Your task to perform on an android device: Open the map Image 0: 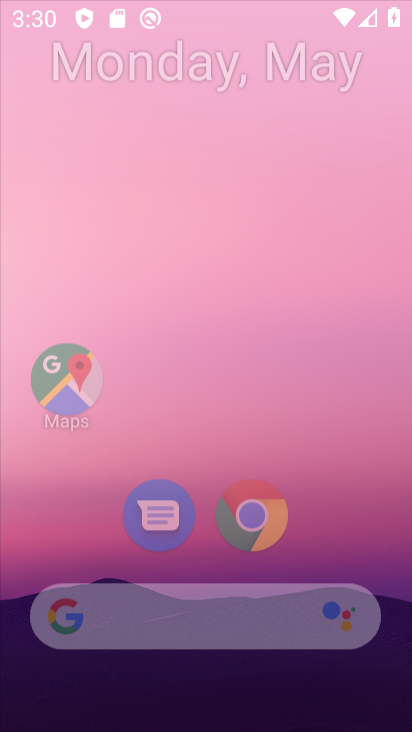
Step 0: click (265, 379)
Your task to perform on an android device: Open the map Image 1: 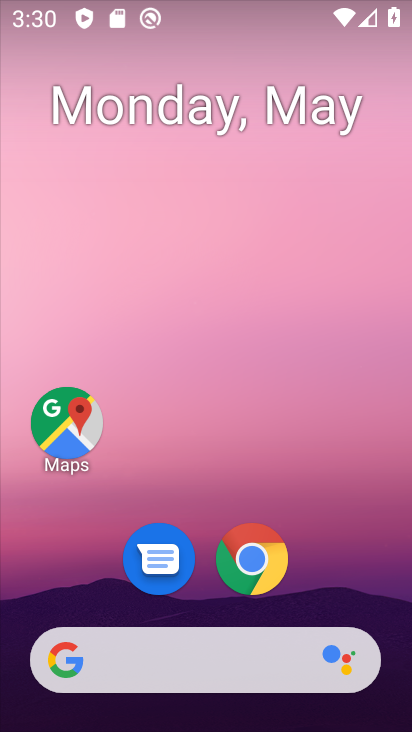
Step 1: drag from (278, 717) to (181, 149)
Your task to perform on an android device: Open the map Image 2: 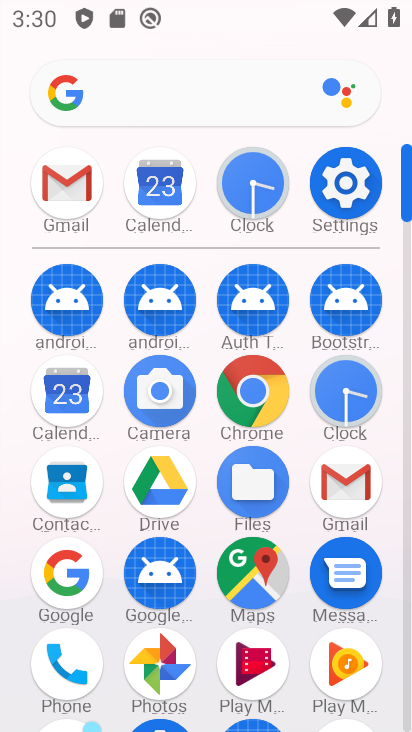
Step 2: click (256, 566)
Your task to perform on an android device: Open the map Image 3: 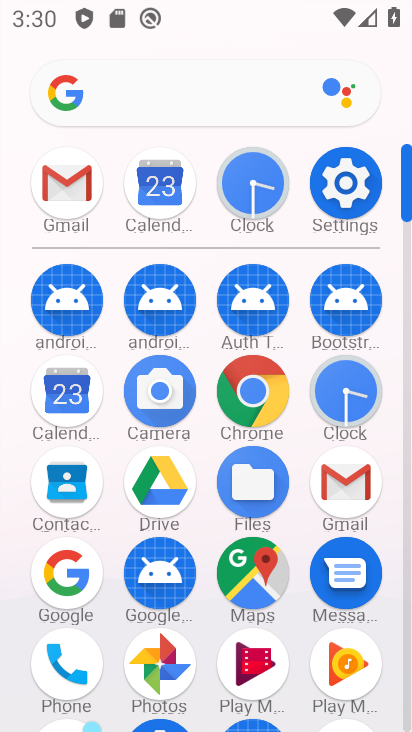
Step 3: click (255, 571)
Your task to perform on an android device: Open the map Image 4: 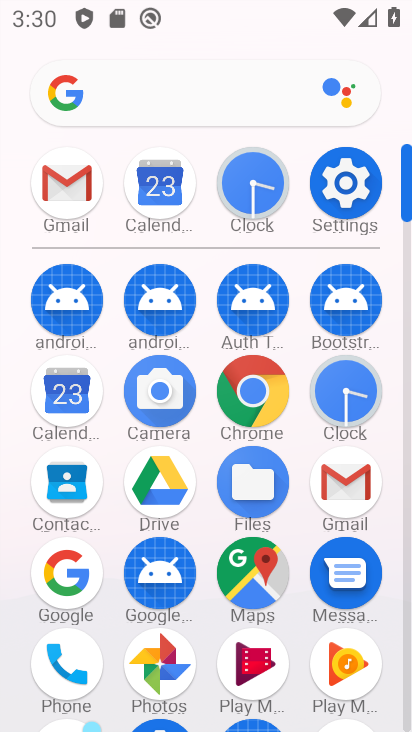
Step 4: click (255, 572)
Your task to perform on an android device: Open the map Image 5: 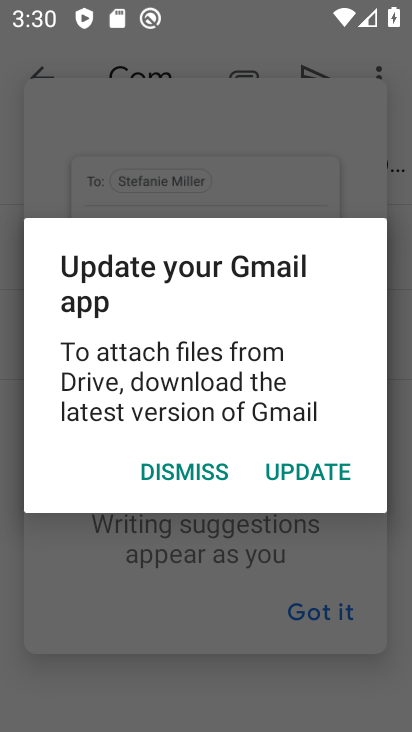
Step 5: click (256, 573)
Your task to perform on an android device: Open the map Image 6: 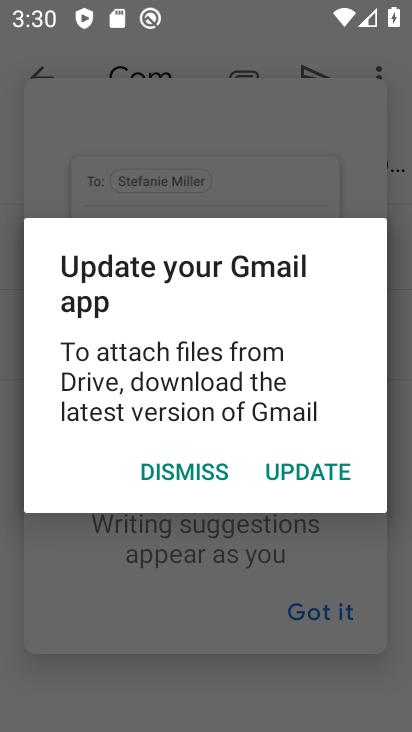
Step 6: click (250, 579)
Your task to perform on an android device: Open the map Image 7: 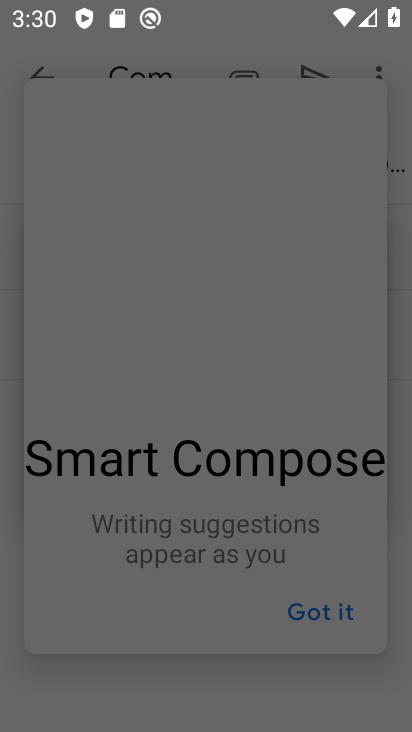
Step 7: click (175, 471)
Your task to perform on an android device: Open the map Image 8: 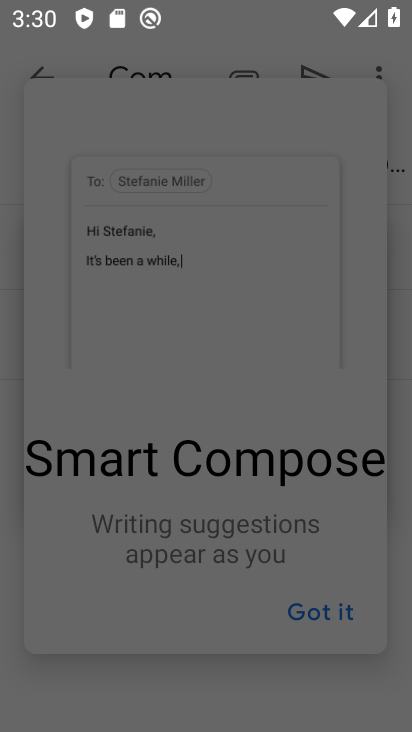
Step 8: click (316, 617)
Your task to perform on an android device: Open the map Image 9: 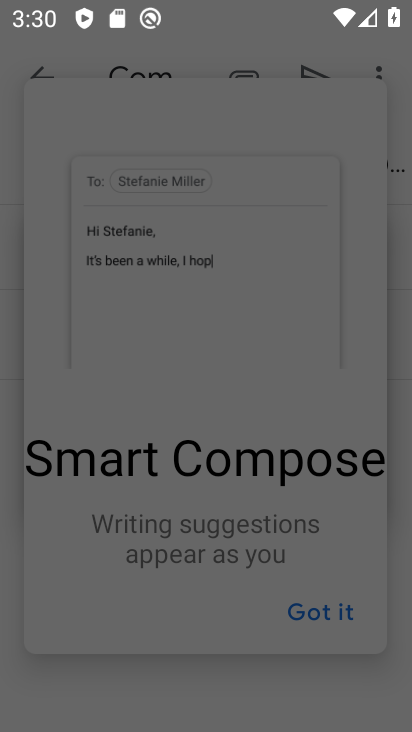
Step 9: click (313, 608)
Your task to perform on an android device: Open the map Image 10: 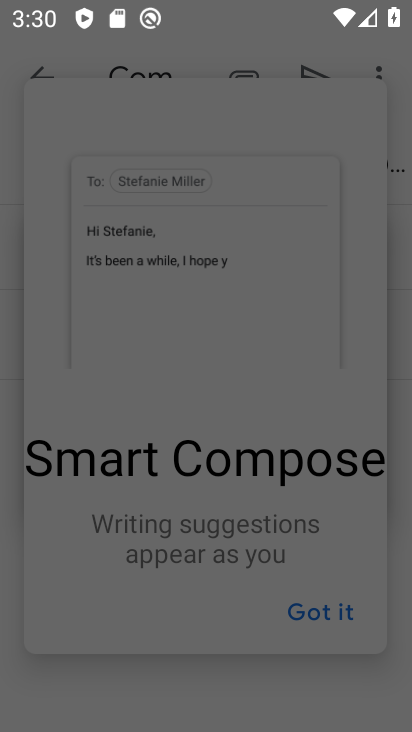
Step 10: click (313, 608)
Your task to perform on an android device: Open the map Image 11: 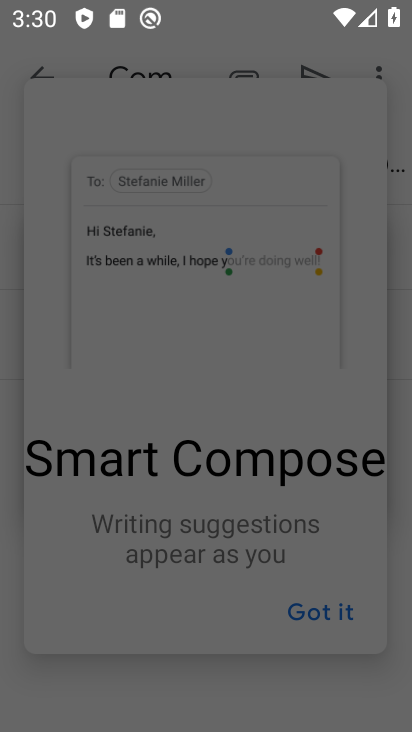
Step 11: click (348, 587)
Your task to perform on an android device: Open the map Image 12: 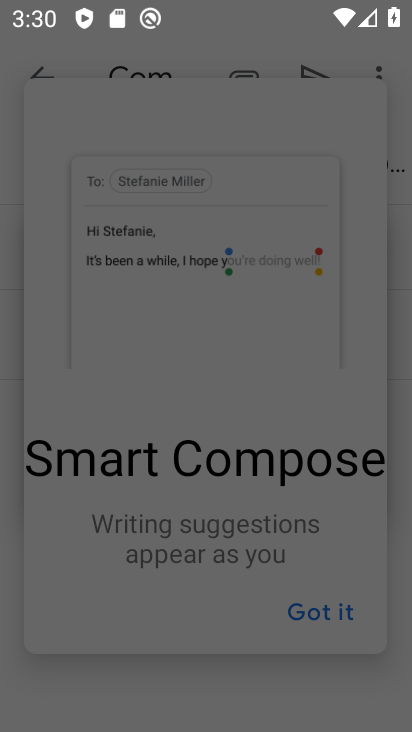
Step 12: click (329, 610)
Your task to perform on an android device: Open the map Image 13: 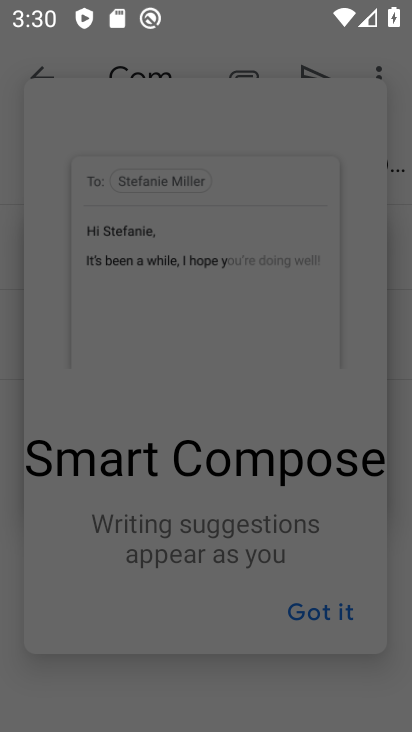
Step 13: click (331, 603)
Your task to perform on an android device: Open the map Image 14: 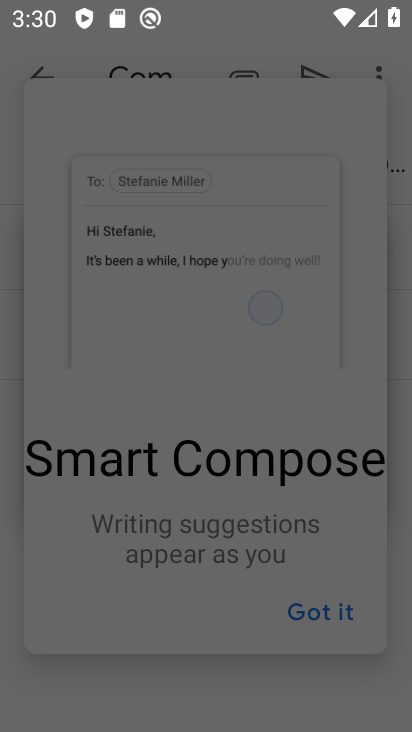
Step 14: click (332, 617)
Your task to perform on an android device: Open the map Image 15: 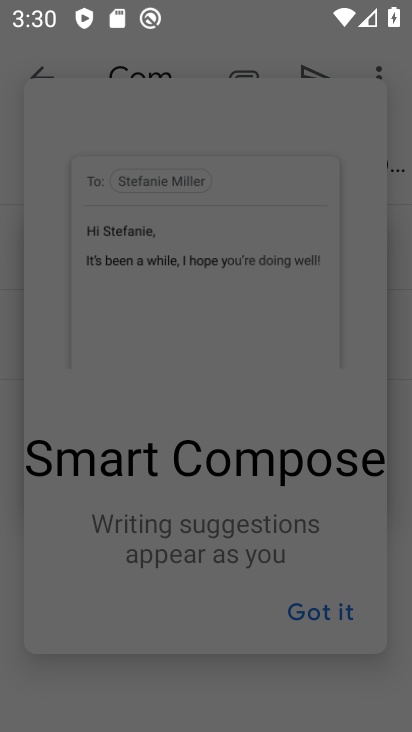
Step 15: click (331, 617)
Your task to perform on an android device: Open the map Image 16: 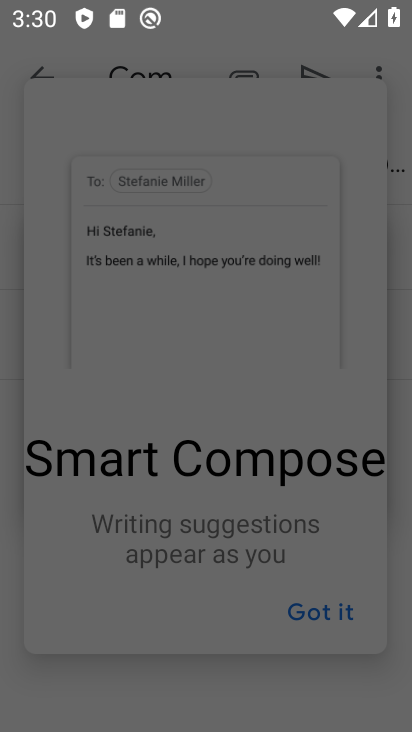
Step 16: click (329, 615)
Your task to perform on an android device: Open the map Image 17: 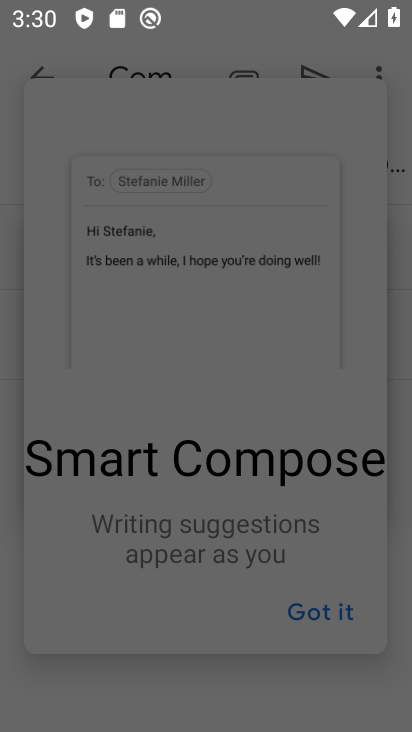
Step 17: click (331, 611)
Your task to perform on an android device: Open the map Image 18: 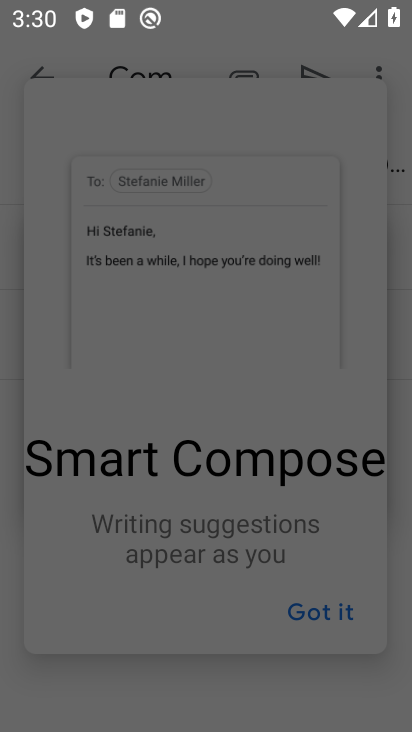
Step 18: click (337, 613)
Your task to perform on an android device: Open the map Image 19: 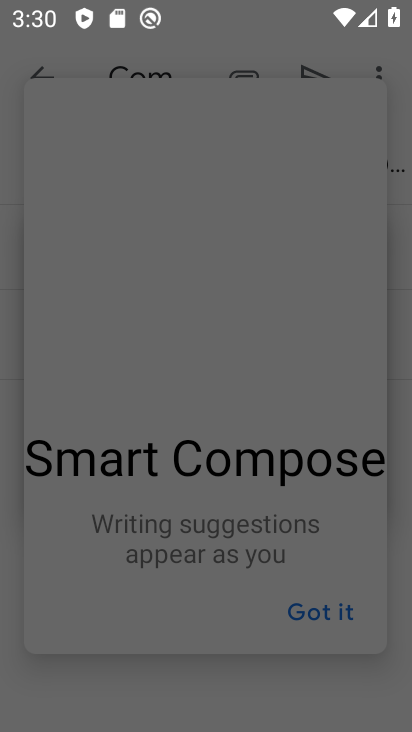
Step 19: press back button
Your task to perform on an android device: Open the map Image 20: 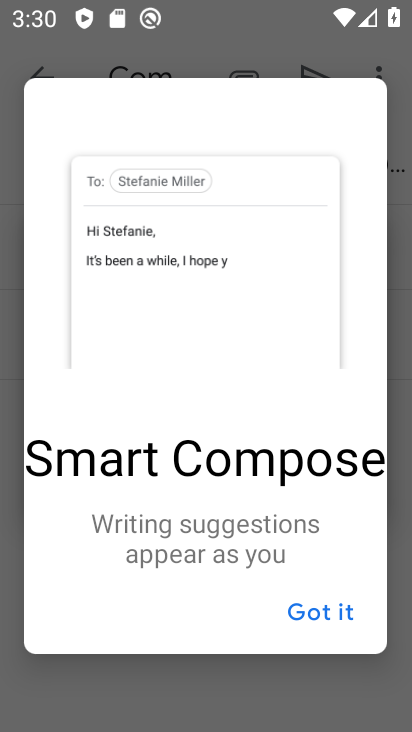
Step 20: click (305, 601)
Your task to perform on an android device: Open the map Image 21: 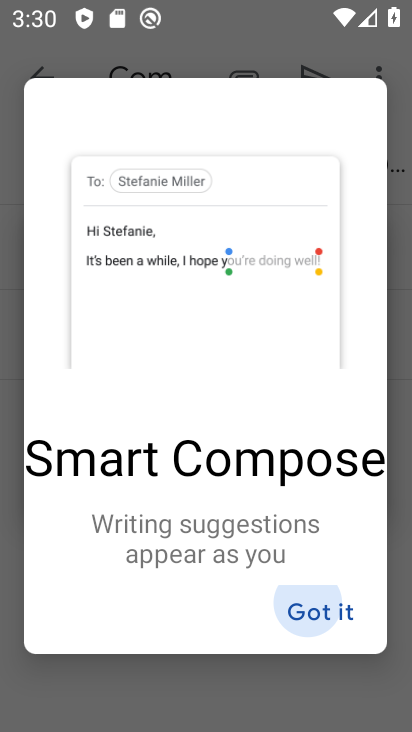
Step 21: click (305, 601)
Your task to perform on an android device: Open the map Image 22: 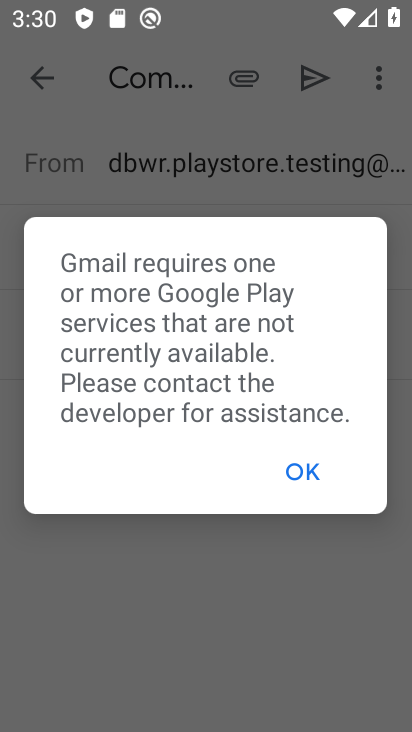
Step 22: click (305, 601)
Your task to perform on an android device: Open the map Image 23: 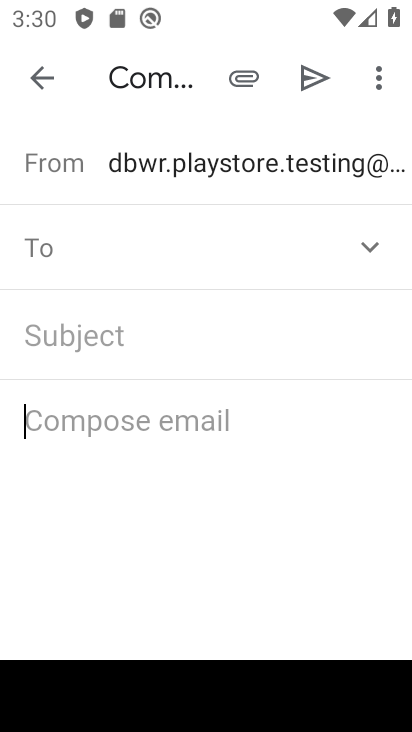
Step 23: click (50, 76)
Your task to perform on an android device: Open the map Image 24: 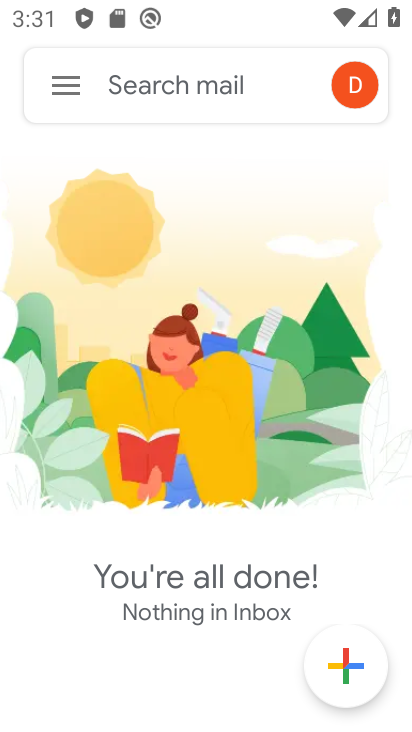
Step 24: press back button
Your task to perform on an android device: Open the map Image 25: 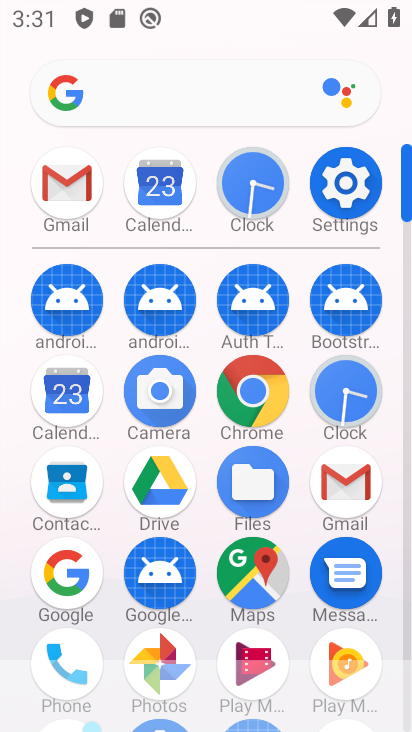
Step 25: click (257, 592)
Your task to perform on an android device: Open the map Image 26: 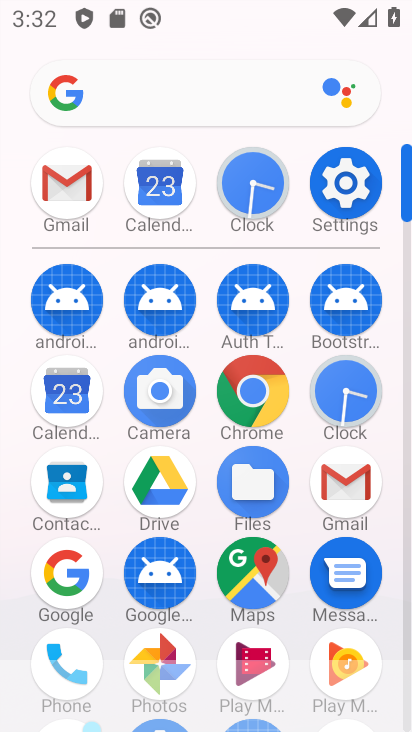
Step 26: click (257, 592)
Your task to perform on an android device: Open the map Image 27: 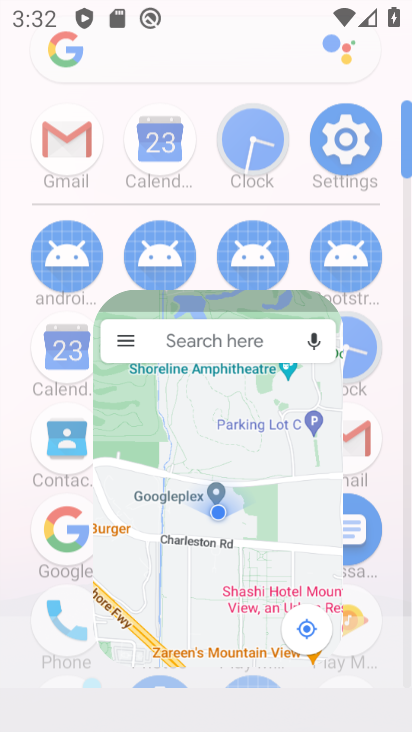
Step 27: click (255, 591)
Your task to perform on an android device: Open the map Image 28: 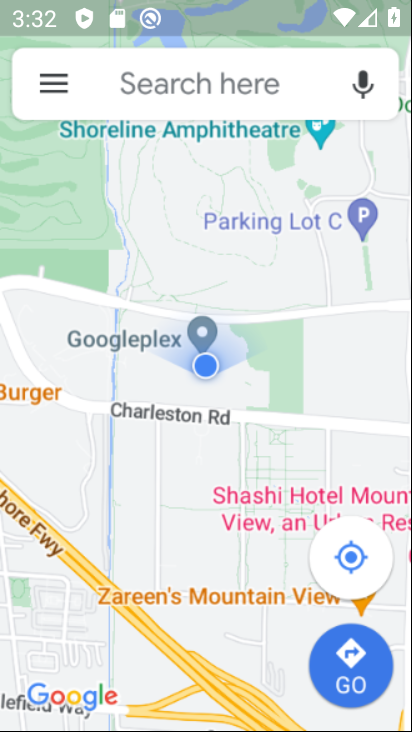
Step 28: click (255, 594)
Your task to perform on an android device: Open the map Image 29: 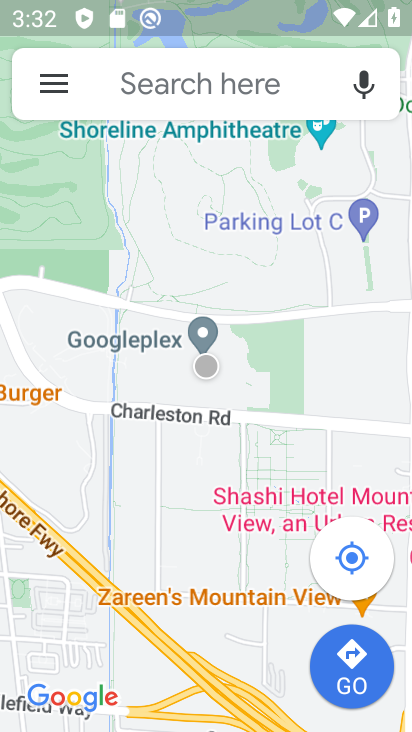
Step 29: task complete